Your task to perform on an android device: Go to wifi settings Image 0: 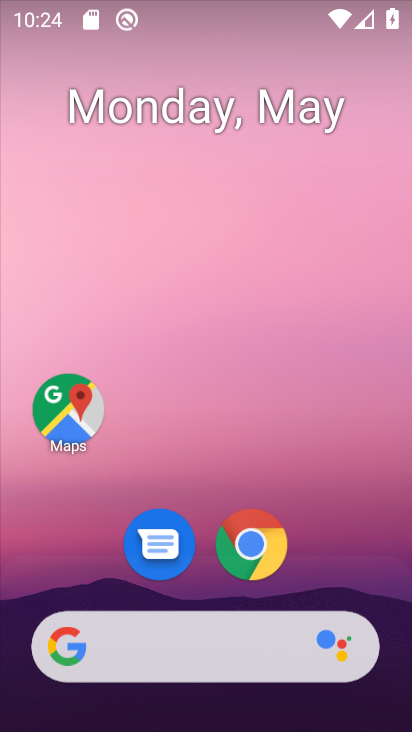
Step 0: drag from (360, 600) to (287, 255)
Your task to perform on an android device: Go to wifi settings Image 1: 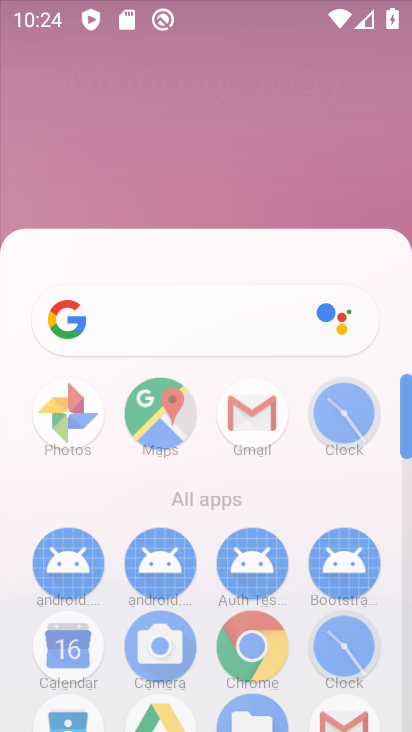
Step 1: drag from (287, 255) to (264, 143)
Your task to perform on an android device: Go to wifi settings Image 2: 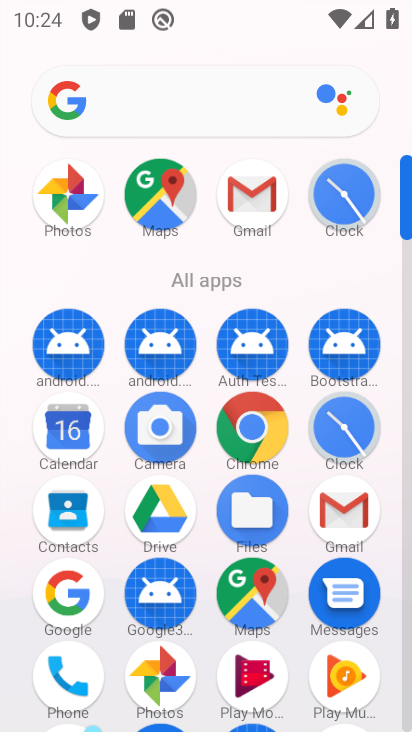
Step 2: click (409, 698)
Your task to perform on an android device: Go to wifi settings Image 3: 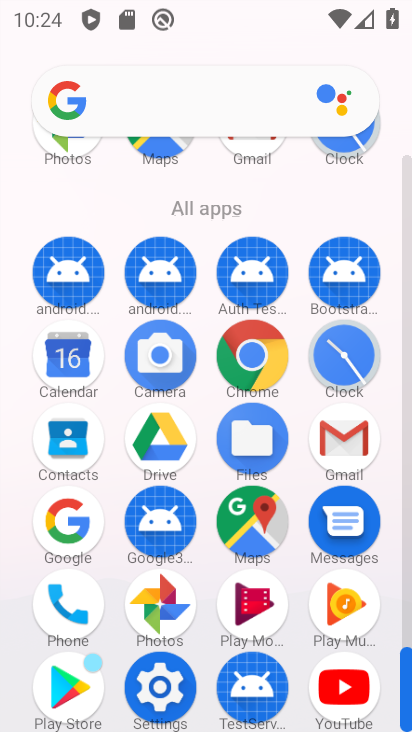
Step 3: click (147, 674)
Your task to perform on an android device: Go to wifi settings Image 4: 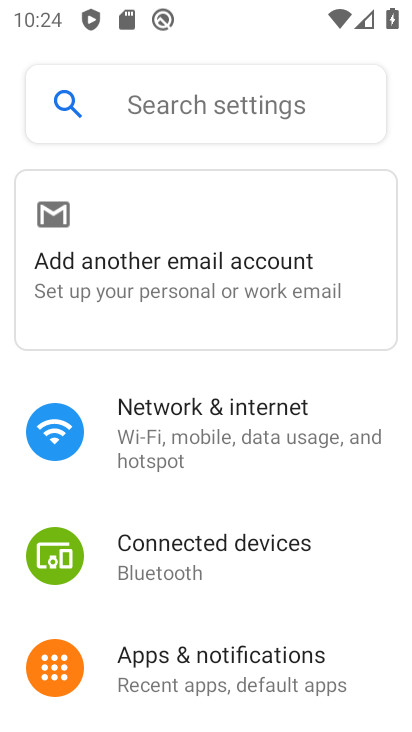
Step 4: click (206, 451)
Your task to perform on an android device: Go to wifi settings Image 5: 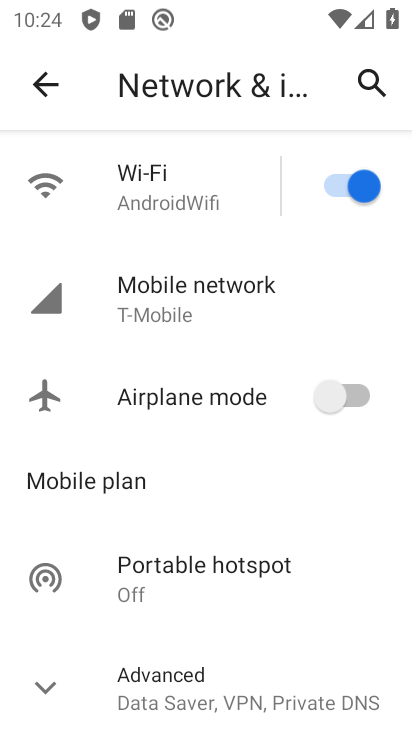
Step 5: click (205, 188)
Your task to perform on an android device: Go to wifi settings Image 6: 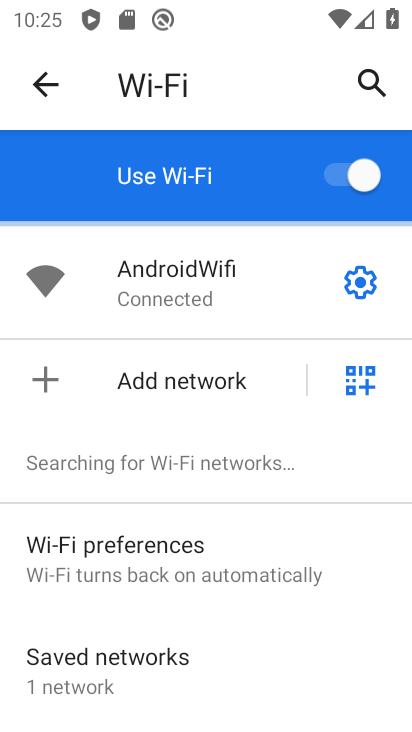
Step 6: task complete